Your task to perform on an android device: Open notification settings Image 0: 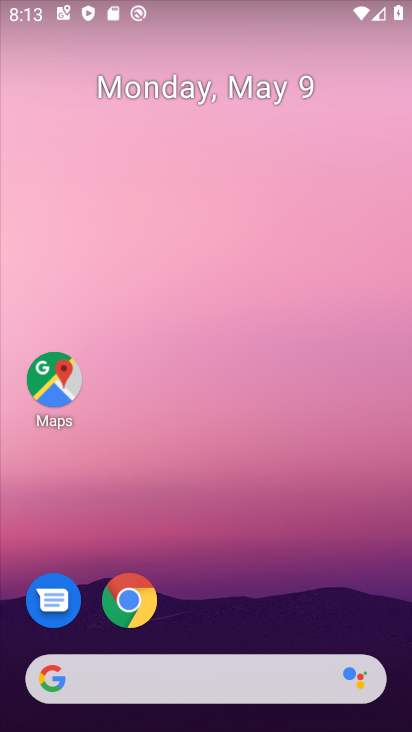
Step 0: drag from (290, 559) to (243, 21)
Your task to perform on an android device: Open notification settings Image 1: 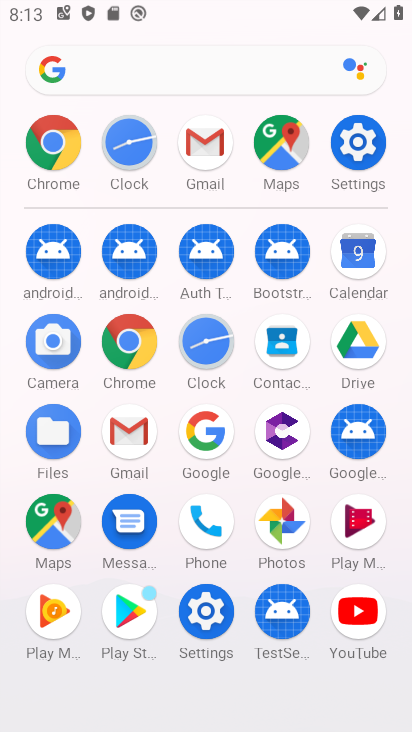
Step 1: click (206, 613)
Your task to perform on an android device: Open notification settings Image 2: 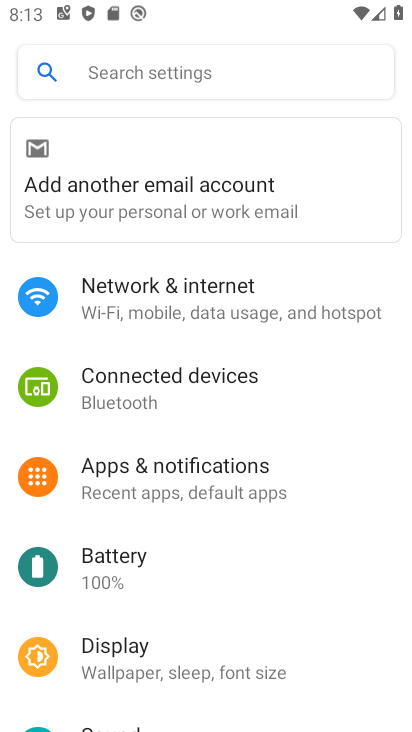
Step 2: click (199, 463)
Your task to perform on an android device: Open notification settings Image 3: 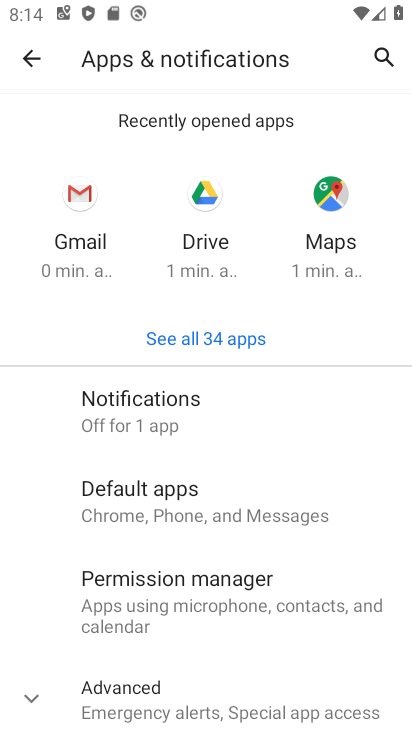
Step 3: click (198, 399)
Your task to perform on an android device: Open notification settings Image 4: 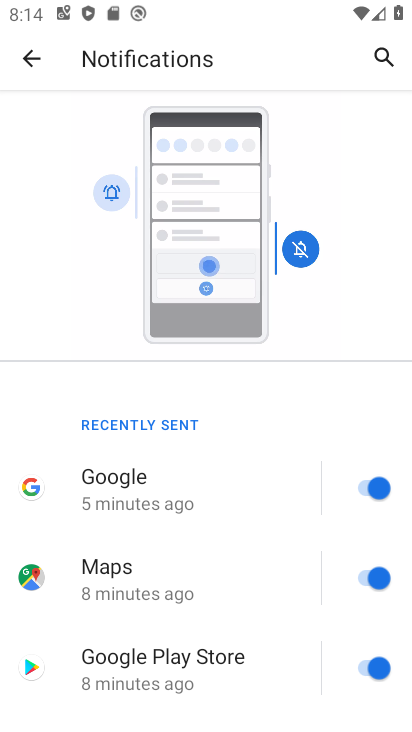
Step 4: task complete